Your task to perform on an android device: visit the assistant section in the google photos Image 0: 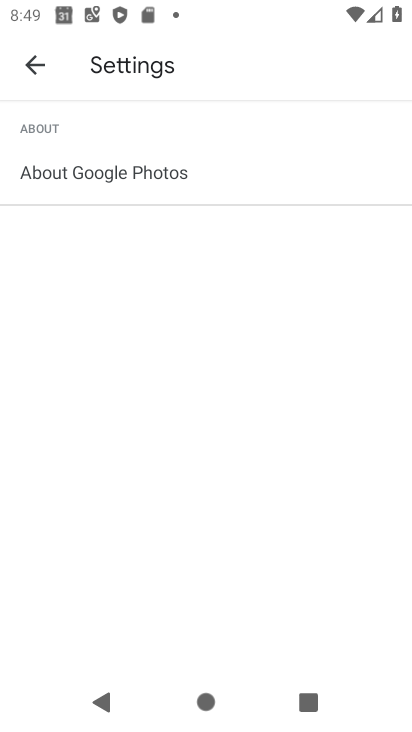
Step 0: press home button
Your task to perform on an android device: visit the assistant section in the google photos Image 1: 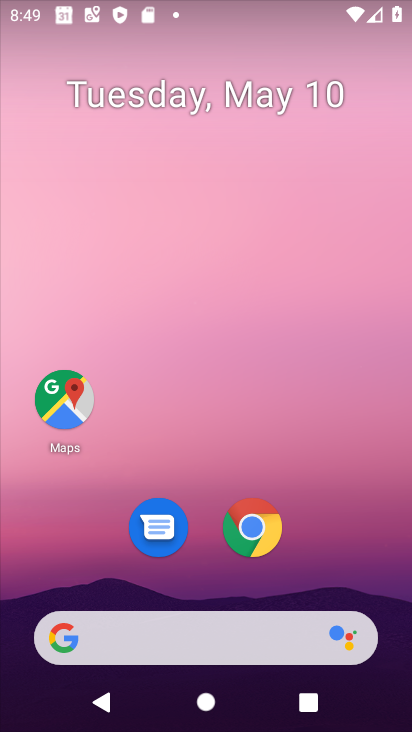
Step 1: drag from (148, 614) to (273, 99)
Your task to perform on an android device: visit the assistant section in the google photos Image 2: 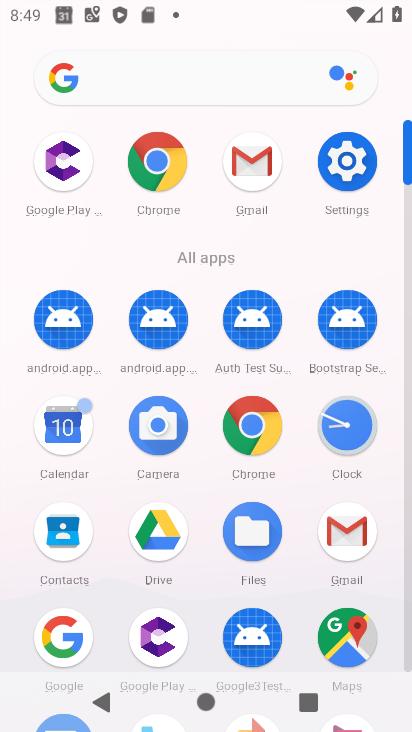
Step 2: drag from (215, 679) to (240, 440)
Your task to perform on an android device: visit the assistant section in the google photos Image 3: 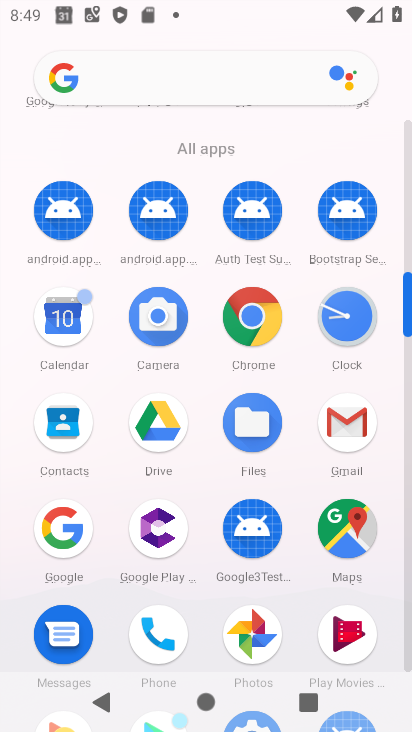
Step 3: click (253, 628)
Your task to perform on an android device: visit the assistant section in the google photos Image 4: 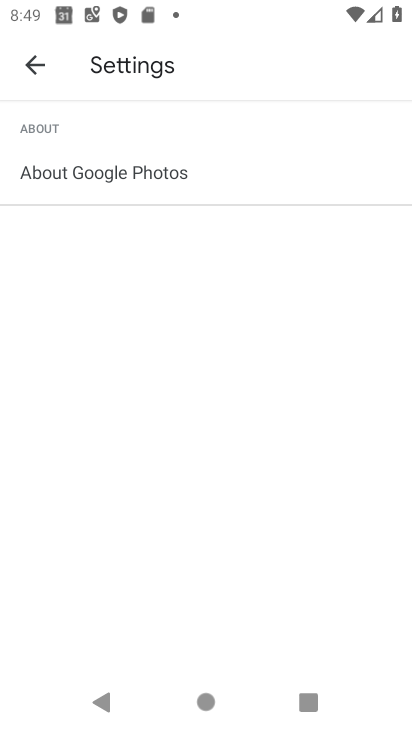
Step 4: click (49, 76)
Your task to perform on an android device: visit the assistant section in the google photos Image 5: 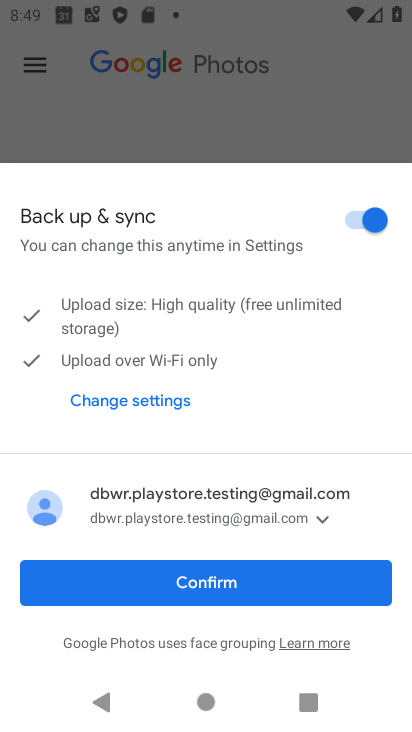
Step 5: click (243, 567)
Your task to perform on an android device: visit the assistant section in the google photos Image 6: 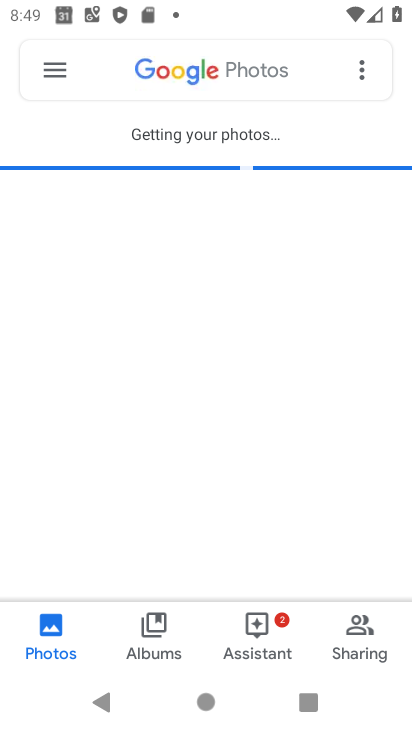
Step 6: click (253, 475)
Your task to perform on an android device: visit the assistant section in the google photos Image 7: 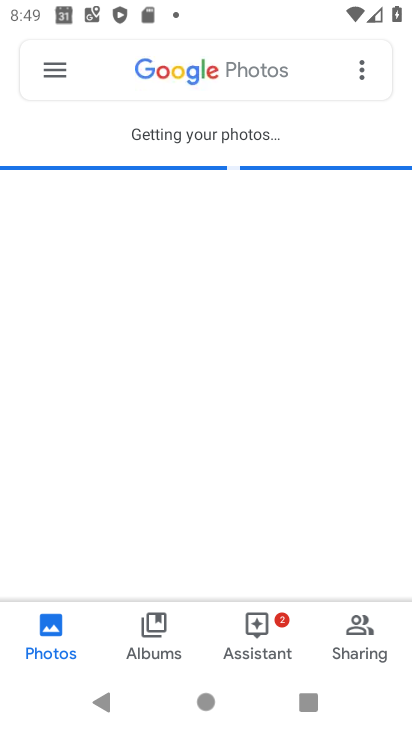
Step 7: click (259, 622)
Your task to perform on an android device: visit the assistant section in the google photos Image 8: 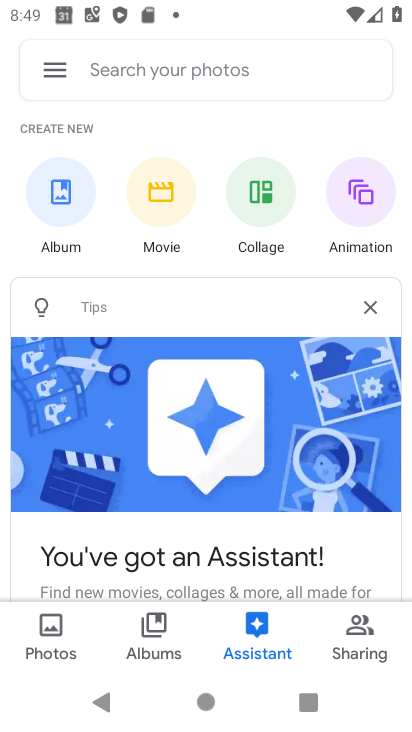
Step 8: task complete